Your task to perform on an android device: toggle translation in the chrome app Image 0: 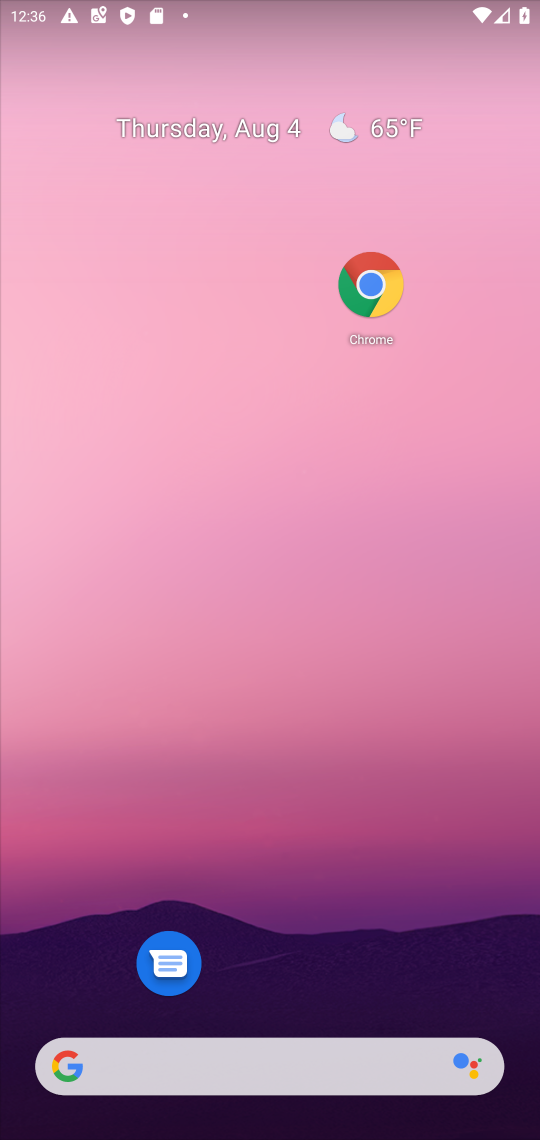
Step 0: press home button
Your task to perform on an android device: toggle translation in the chrome app Image 1: 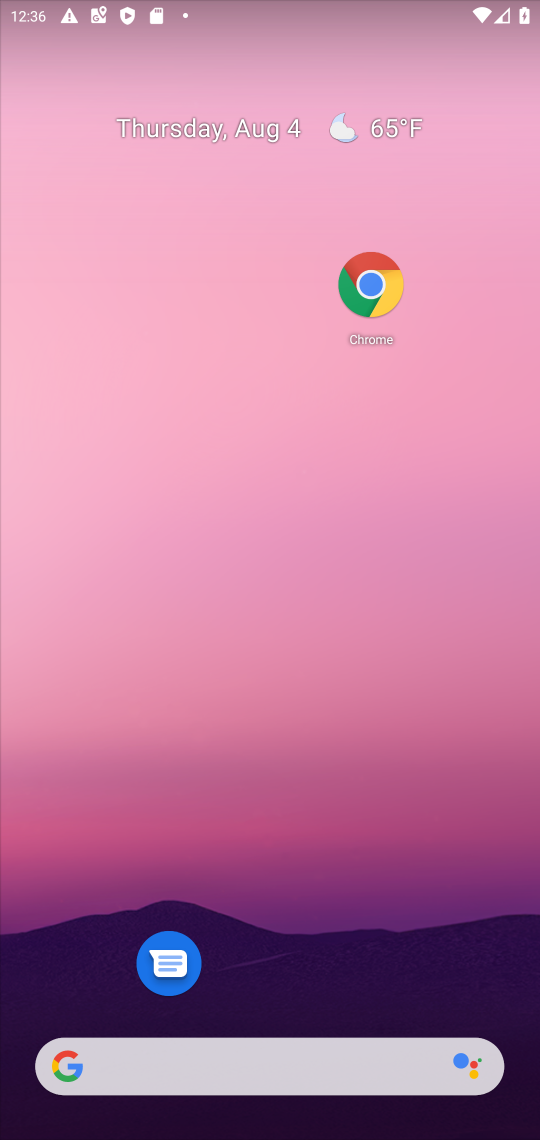
Step 1: click (376, 294)
Your task to perform on an android device: toggle translation in the chrome app Image 2: 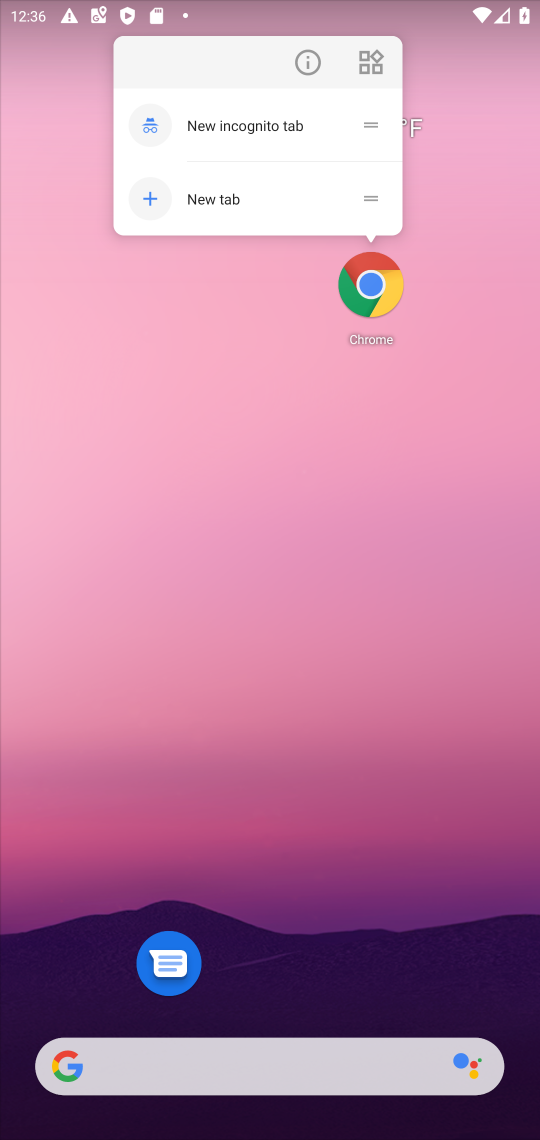
Step 2: drag from (322, 1001) to (333, 372)
Your task to perform on an android device: toggle translation in the chrome app Image 3: 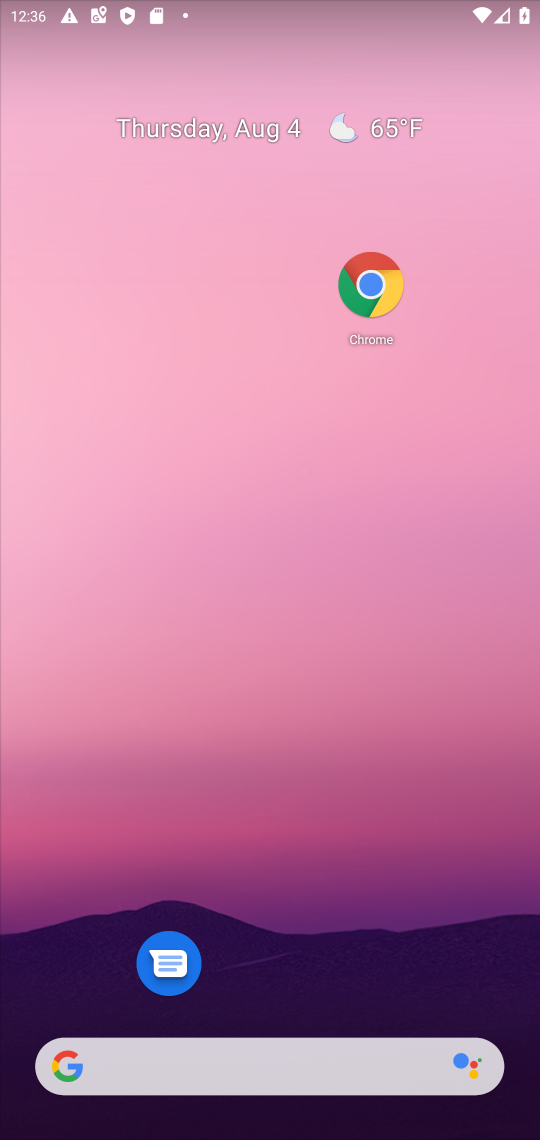
Step 3: click (298, 349)
Your task to perform on an android device: toggle translation in the chrome app Image 4: 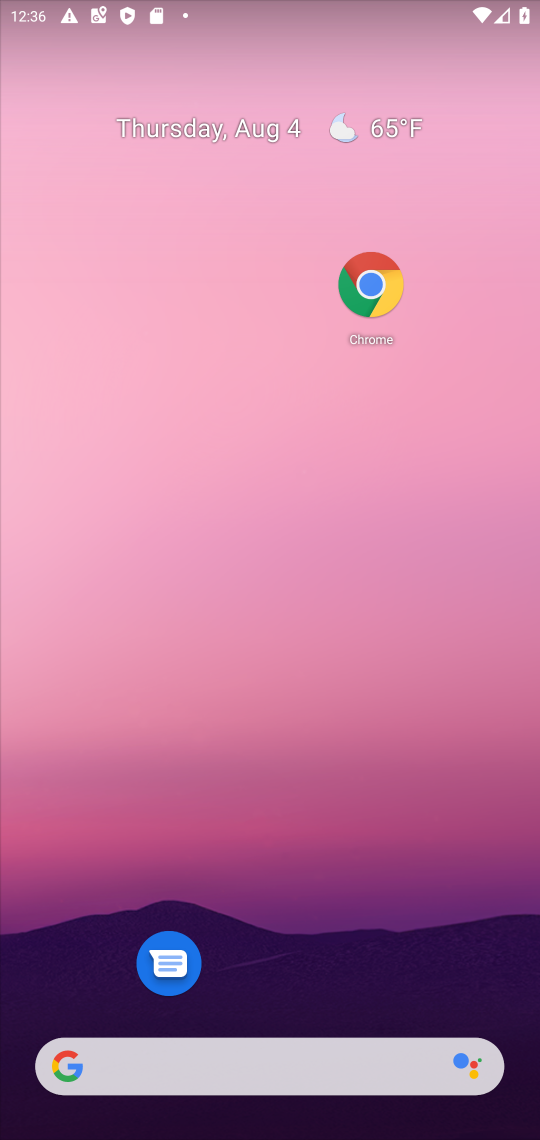
Step 4: click (375, 314)
Your task to perform on an android device: toggle translation in the chrome app Image 5: 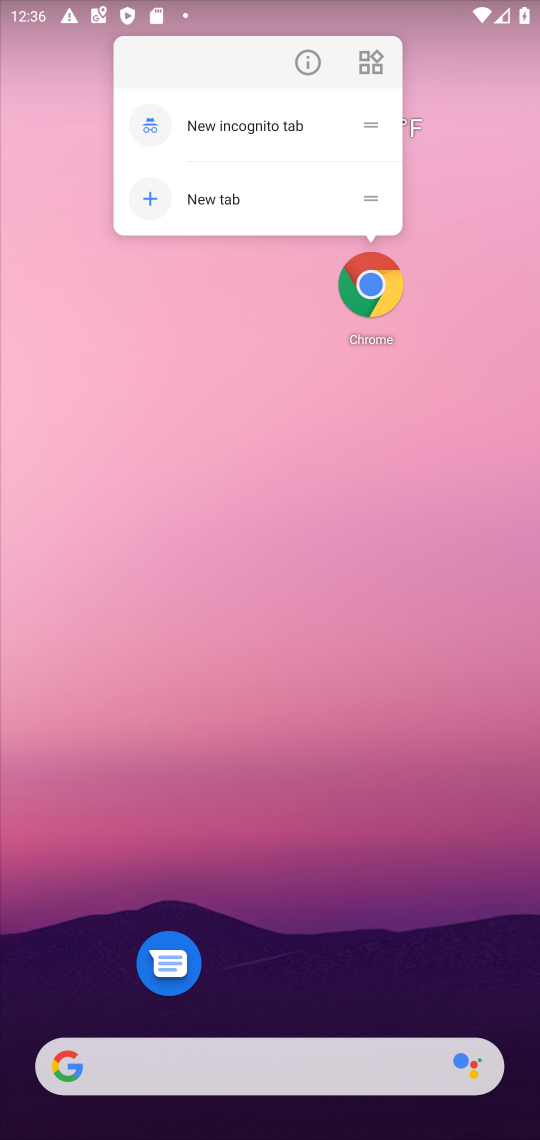
Step 5: click (375, 308)
Your task to perform on an android device: toggle translation in the chrome app Image 6: 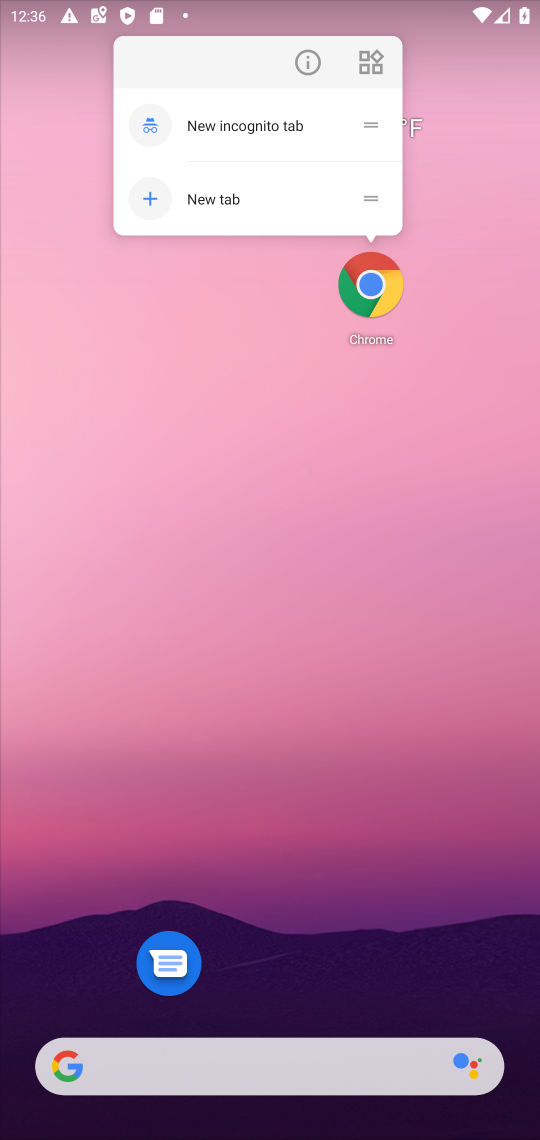
Step 6: drag from (238, 1098) to (220, 167)
Your task to perform on an android device: toggle translation in the chrome app Image 7: 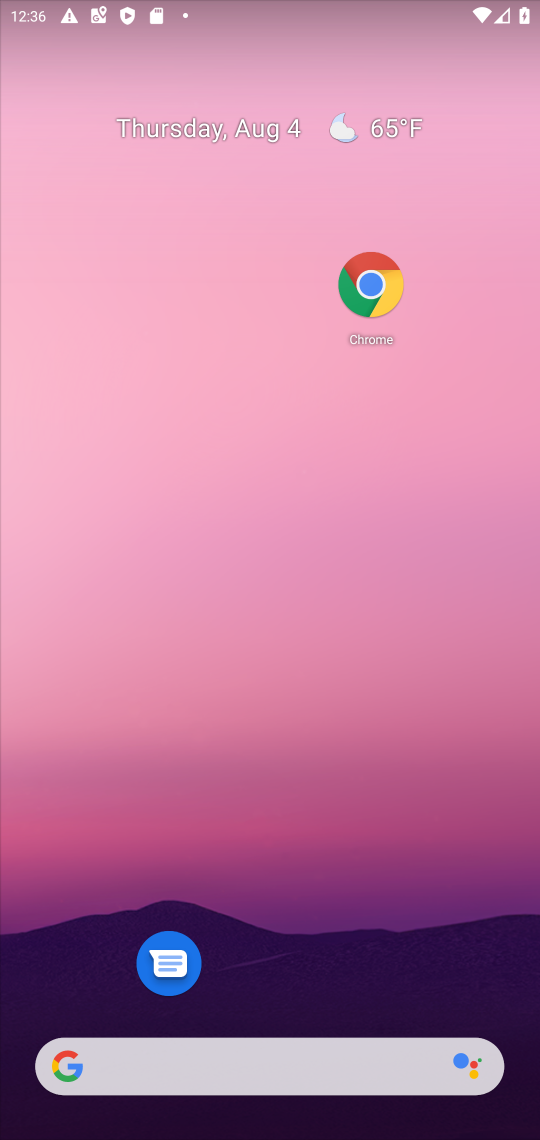
Step 7: click (241, 323)
Your task to perform on an android device: toggle translation in the chrome app Image 8: 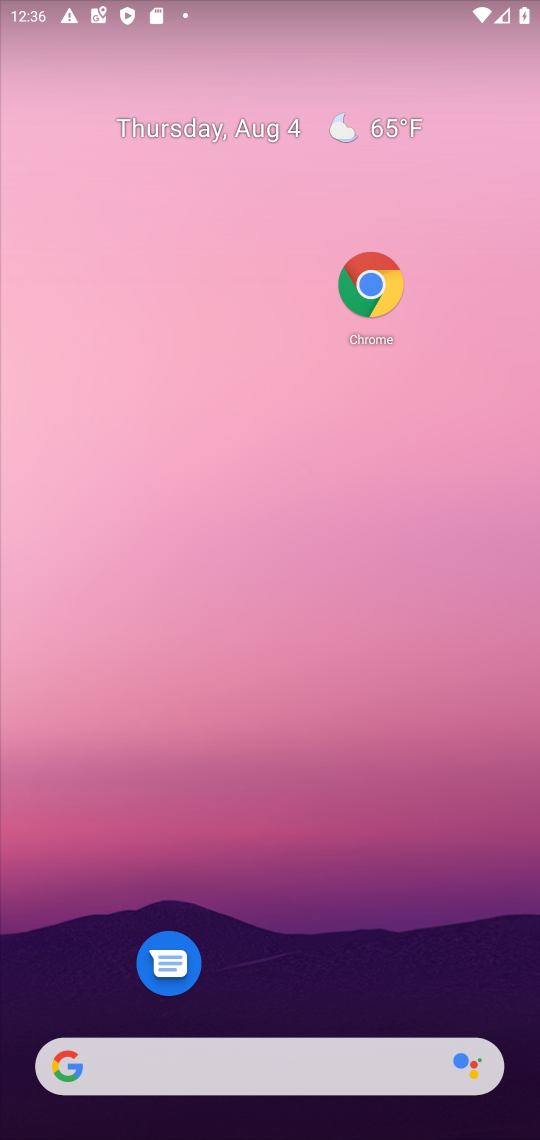
Step 8: drag from (303, 839) to (303, 668)
Your task to perform on an android device: toggle translation in the chrome app Image 9: 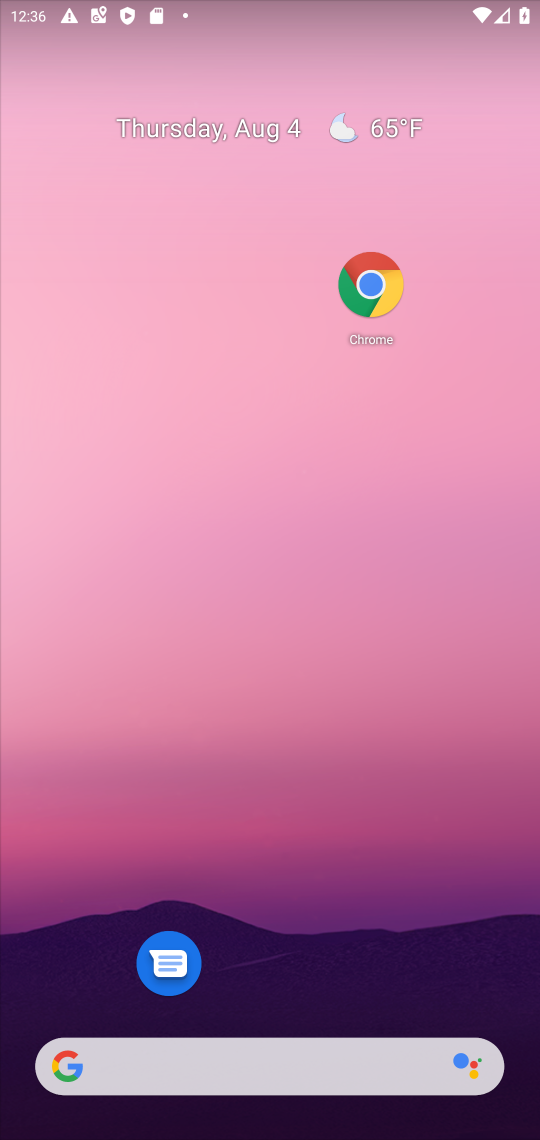
Step 9: drag from (279, 970) to (334, 284)
Your task to perform on an android device: toggle translation in the chrome app Image 10: 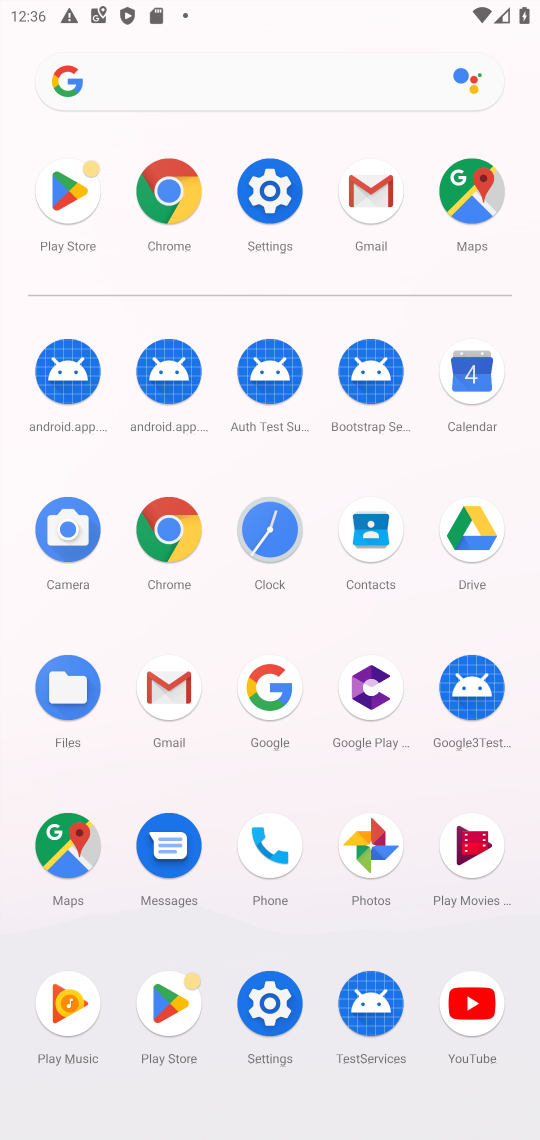
Step 10: click (161, 541)
Your task to perform on an android device: toggle translation in the chrome app Image 11: 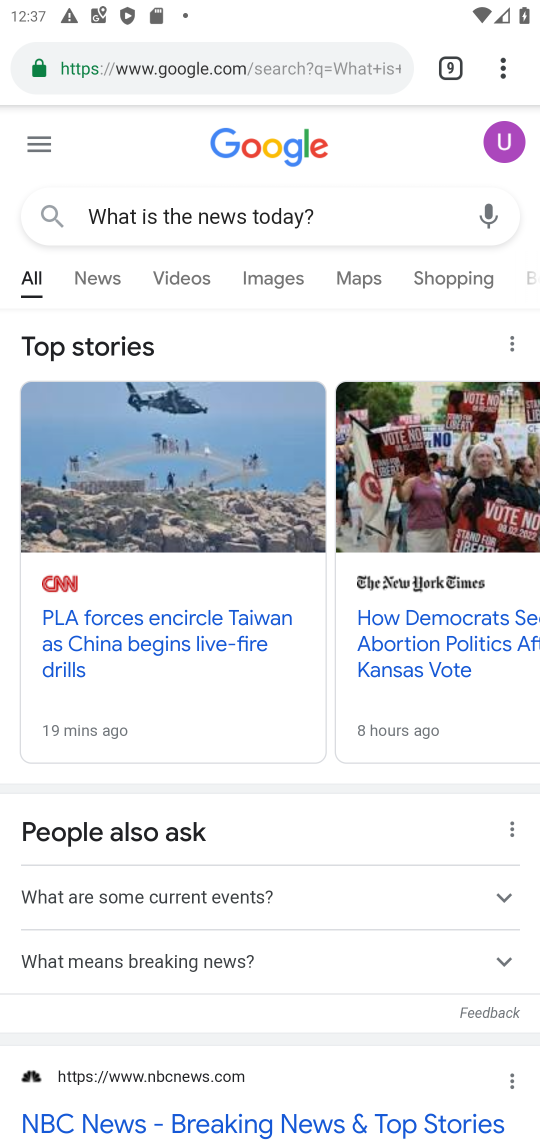
Step 11: click (503, 77)
Your task to perform on an android device: toggle translation in the chrome app Image 12: 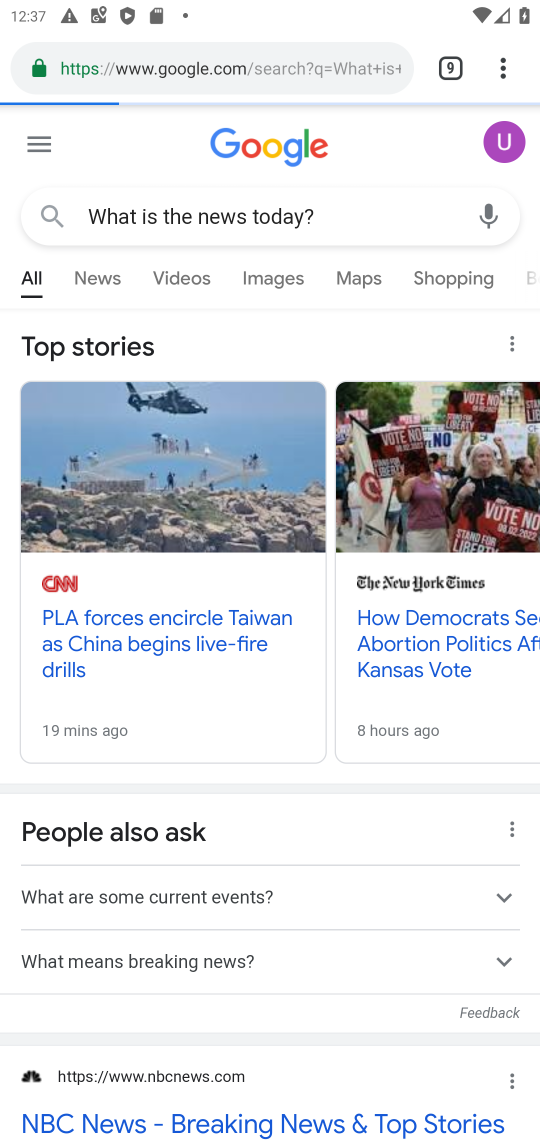
Step 12: click (503, 77)
Your task to perform on an android device: toggle translation in the chrome app Image 13: 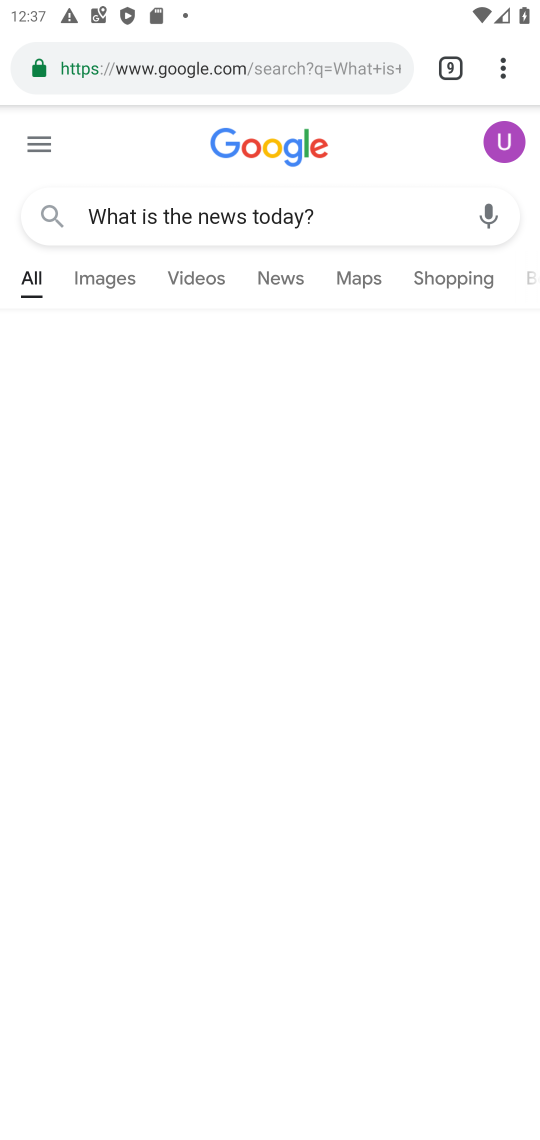
Step 13: click (515, 54)
Your task to perform on an android device: toggle translation in the chrome app Image 14: 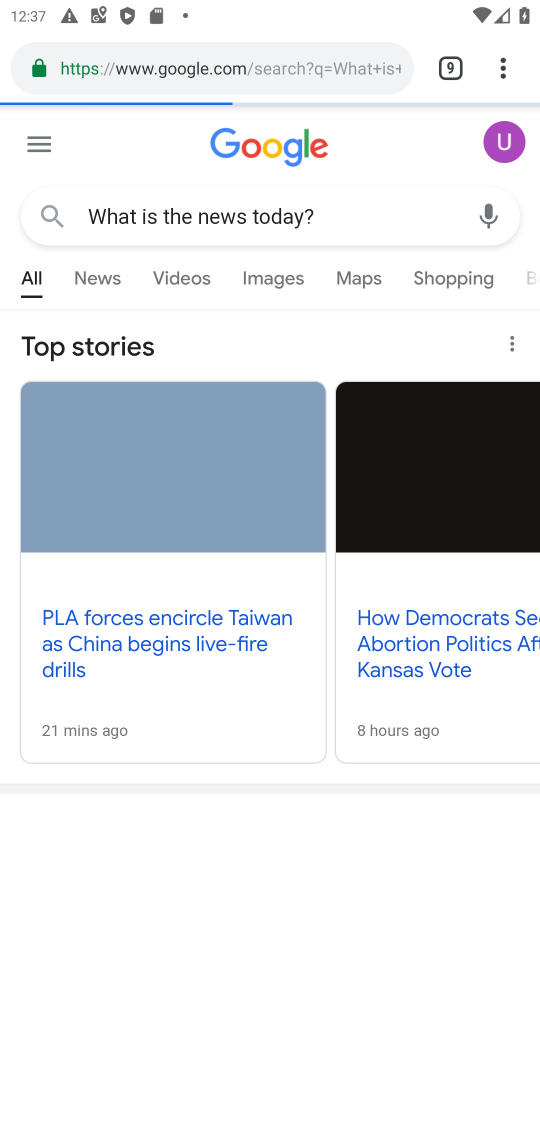
Step 14: click (515, 54)
Your task to perform on an android device: toggle translation in the chrome app Image 15: 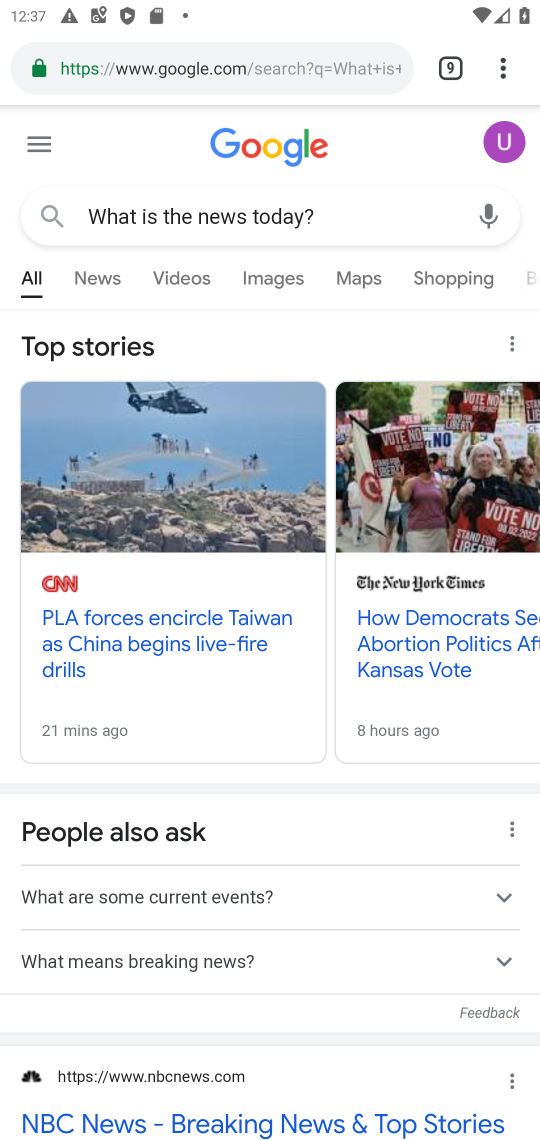
Step 15: click (463, 57)
Your task to perform on an android device: toggle translation in the chrome app Image 16: 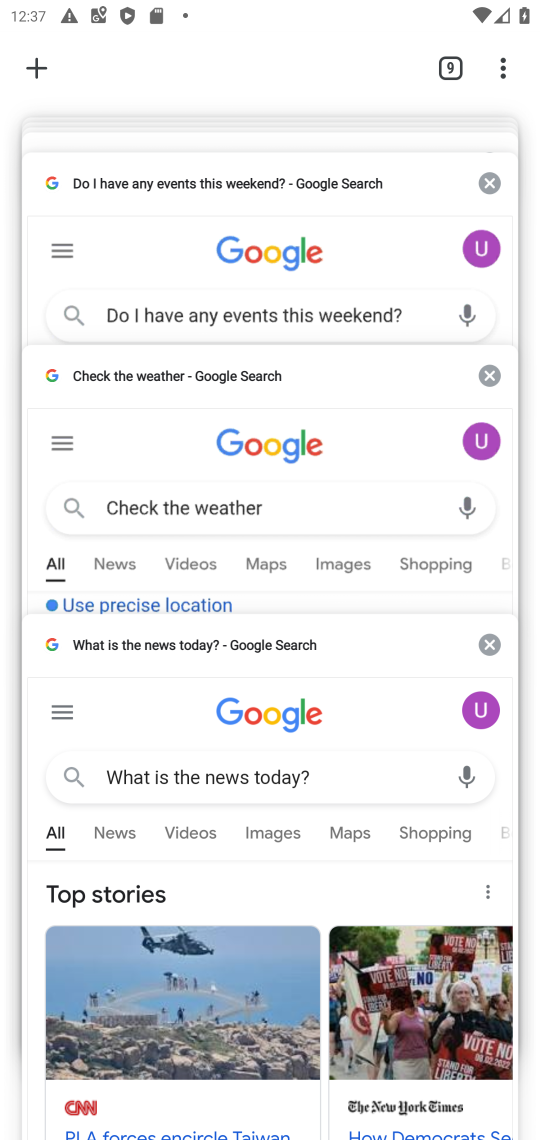
Step 16: click (500, 63)
Your task to perform on an android device: toggle translation in the chrome app Image 17: 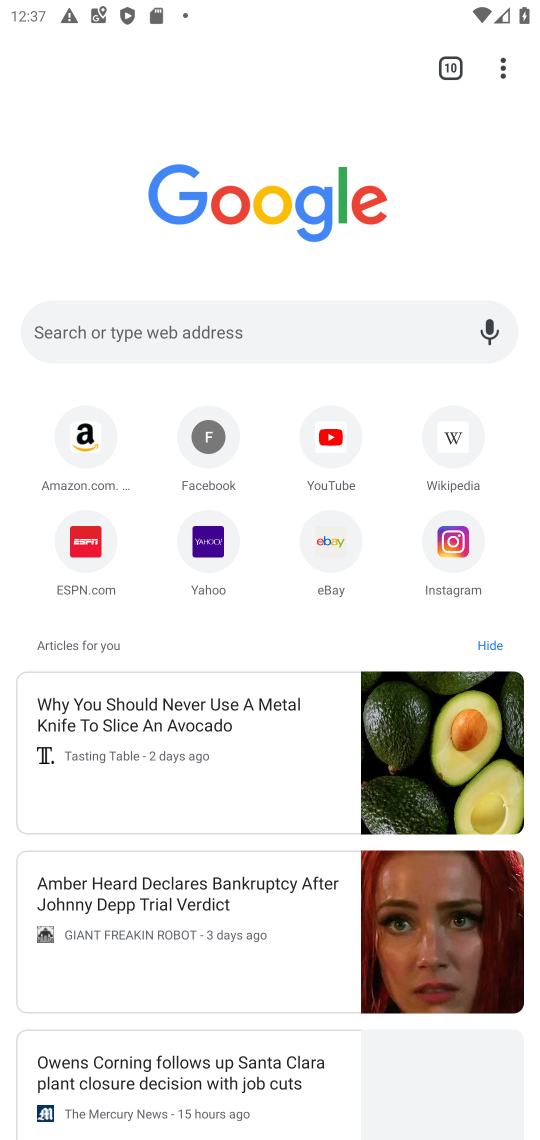
Step 17: click (484, 78)
Your task to perform on an android device: toggle translation in the chrome app Image 18: 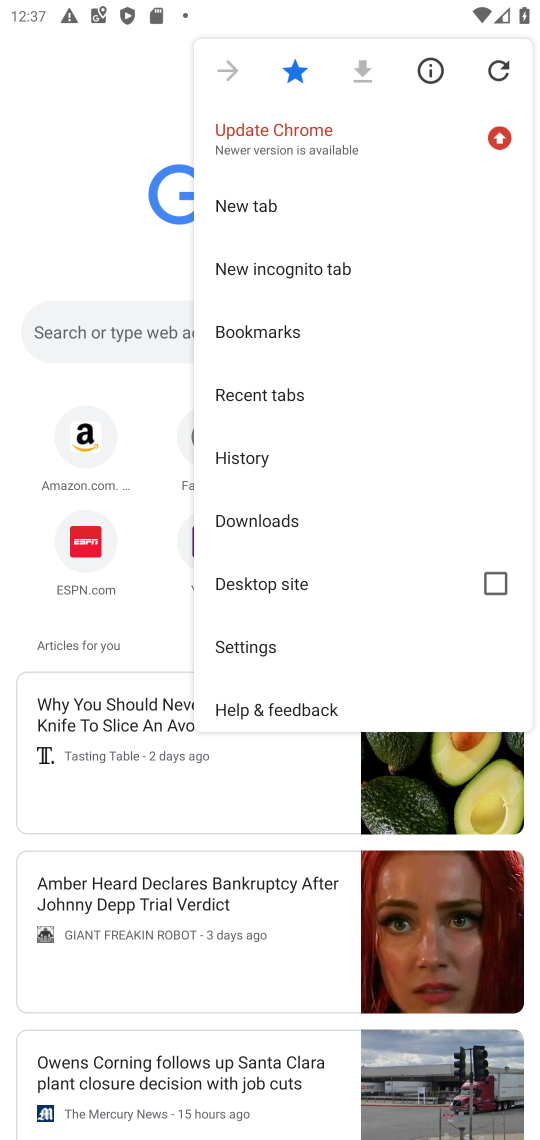
Step 18: click (250, 648)
Your task to perform on an android device: toggle translation in the chrome app Image 19: 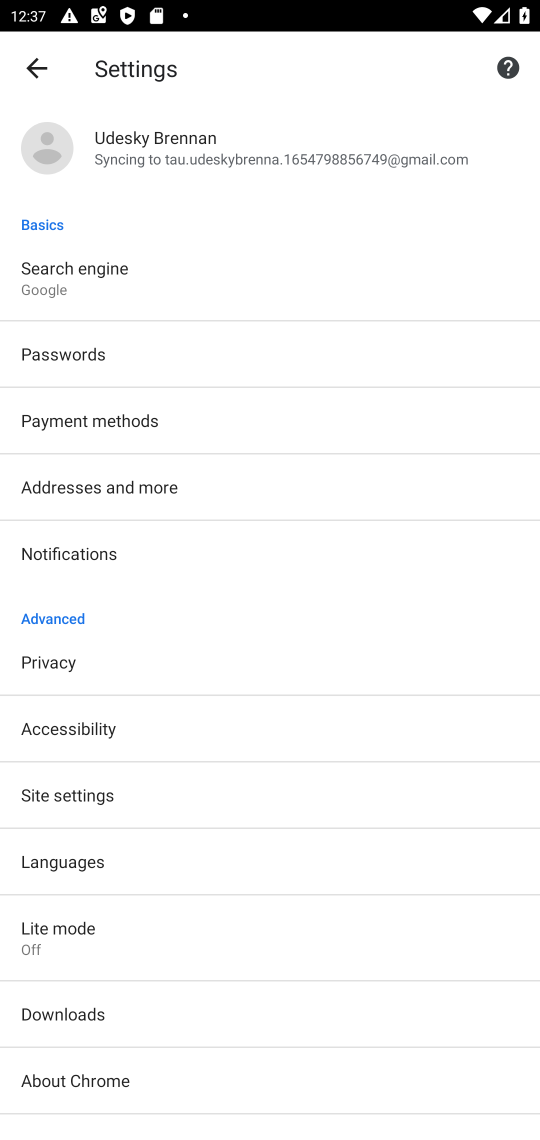
Step 19: click (134, 860)
Your task to perform on an android device: toggle translation in the chrome app Image 20: 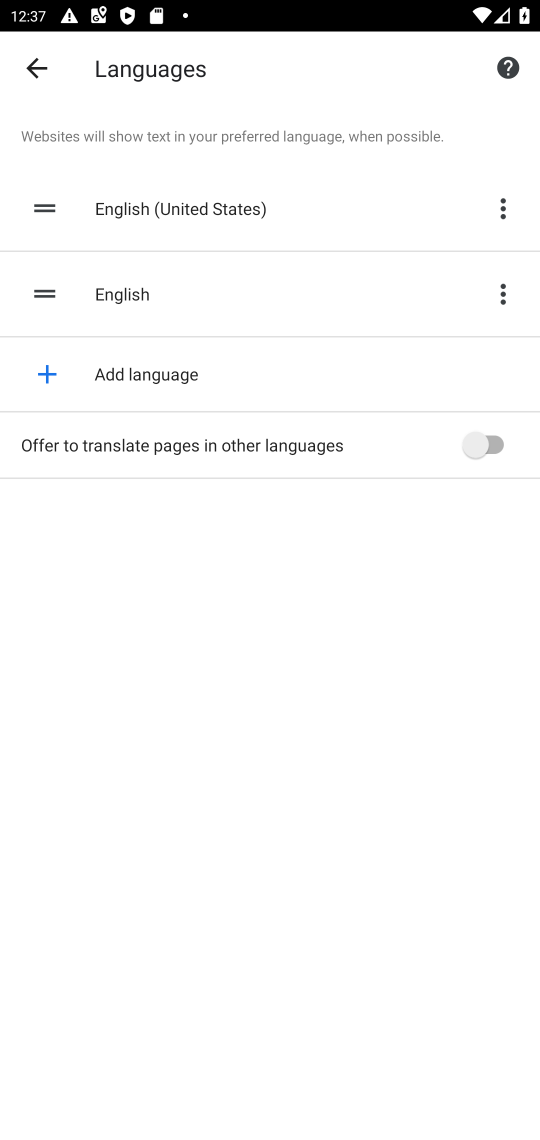
Step 20: click (465, 456)
Your task to perform on an android device: toggle translation in the chrome app Image 21: 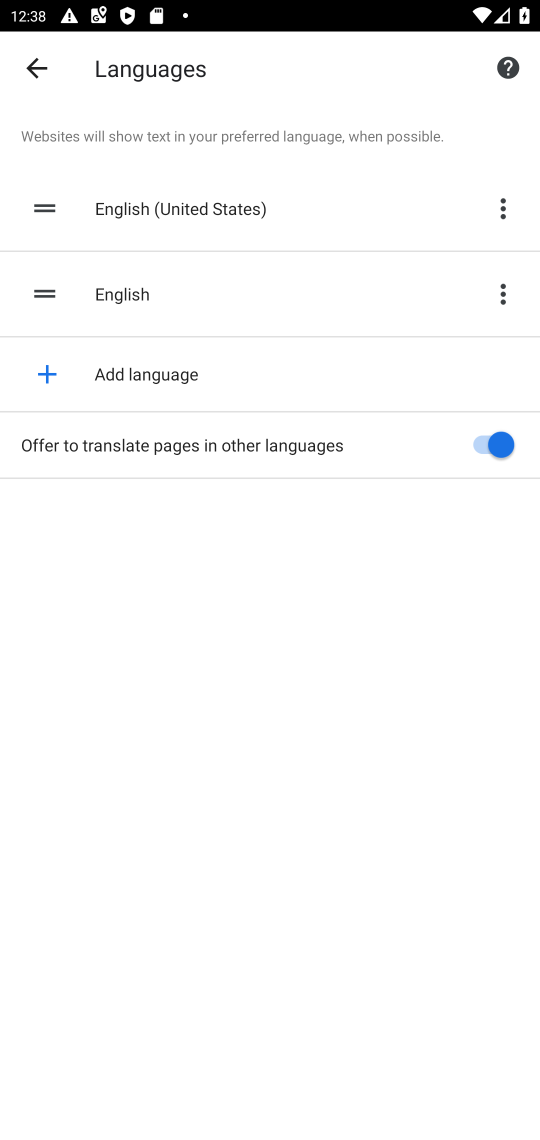
Step 21: task complete